Your task to perform on an android device: change notification settings in the gmail app Image 0: 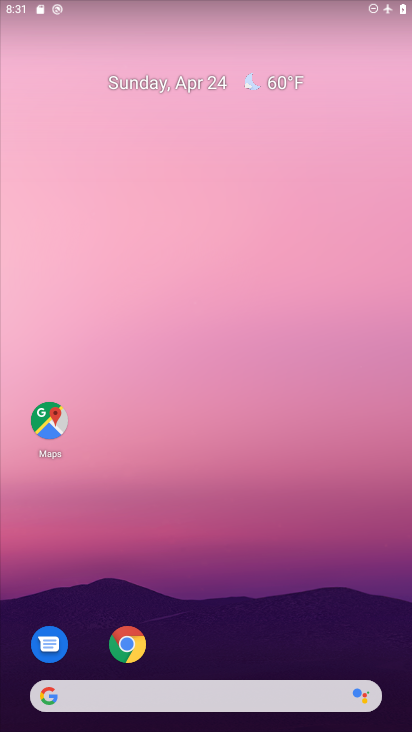
Step 0: click (212, 64)
Your task to perform on an android device: change notification settings in the gmail app Image 1: 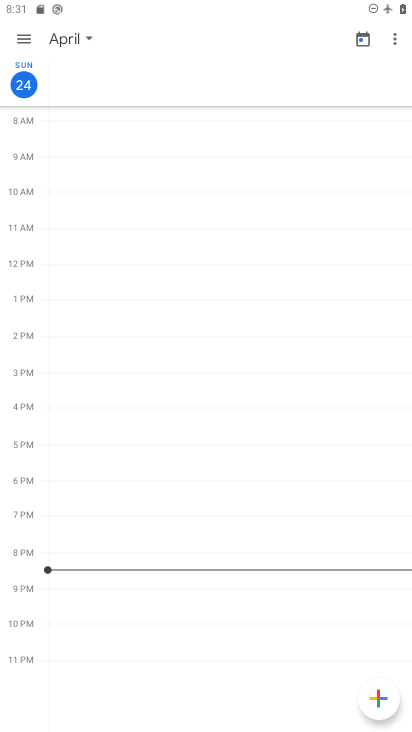
Step 1: press home button
Your task to perform on an android device: change notification settings in the gmail app Image 2: 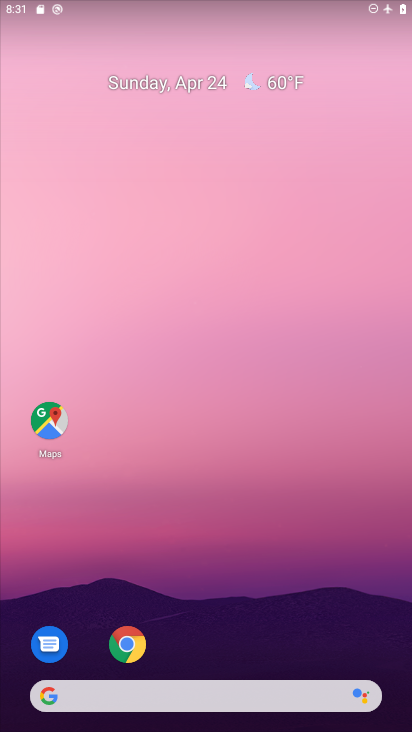
Step 2: drag from (208, 645) to (216, 110)
Your task to perform on an android device: change notification settings in the gmail app Image 3: 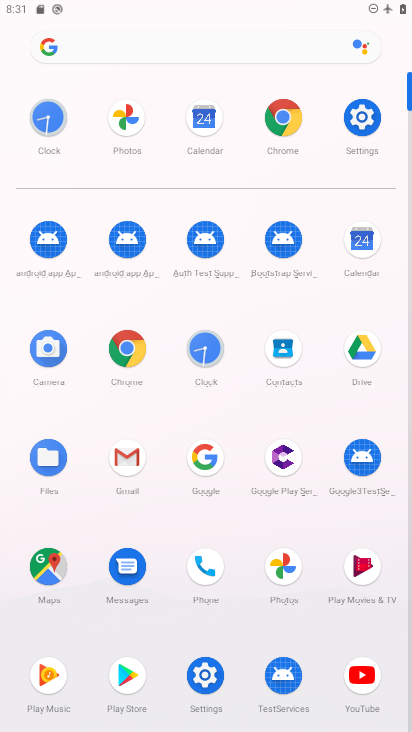
Step 3: click (358, 671)
Your task to perform on an android device: change notification settings in the gmail app Image 4: 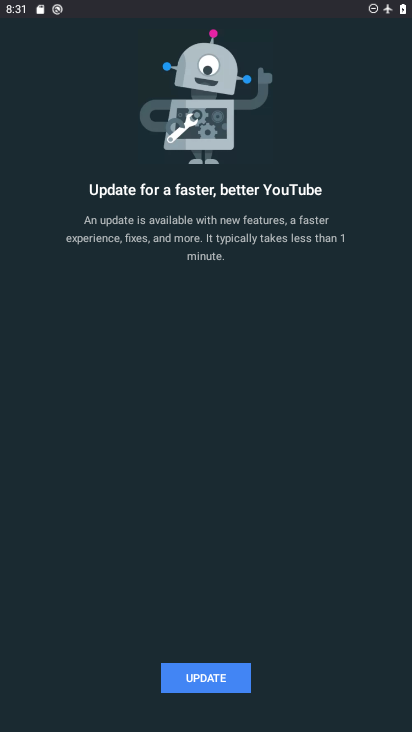
Step 4: press home button
Your task to perform on an android device: change notification settings in the gmail app Image 5: 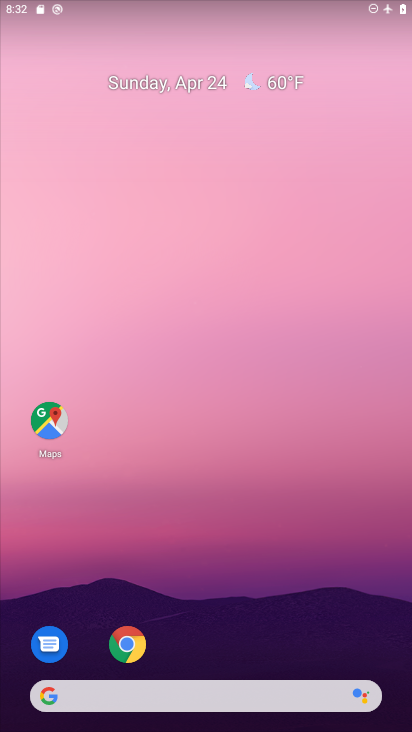
Step 5: drag from (207, 651) to (208, 113)
Your task to perform on an android device: change notification settings in the gmail app Image 6: 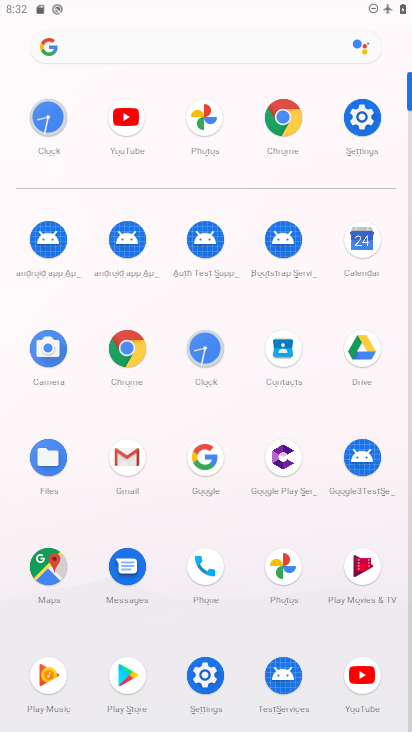
Step 6: click (123, 447)
Your task to perform on an android device: change notification settings in the gmail app Image 7: 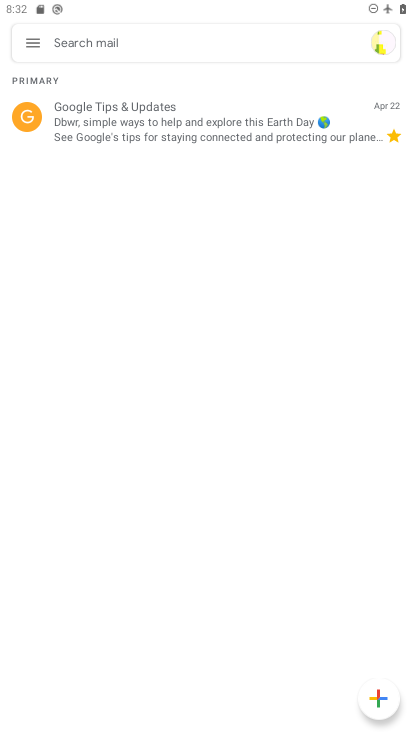
Step 7: click (32, 46)
Your task to perform on an android device: change notification settings in the gmail app Image 8: 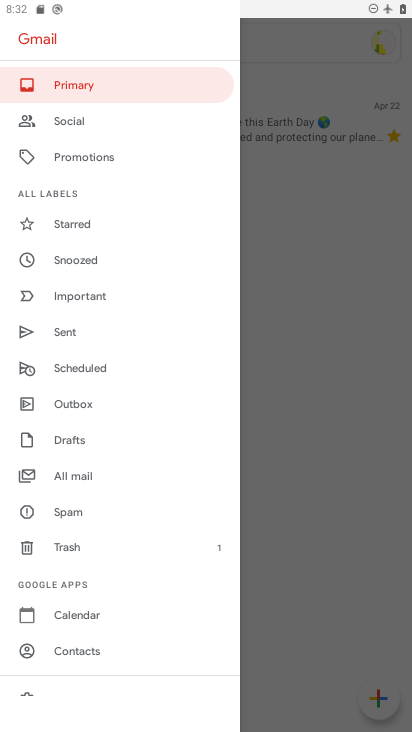
Step 8: drag from (132, 604) to (133, 134)
Your task to perform on an android device: change notification settings in the gmail app Image 9: 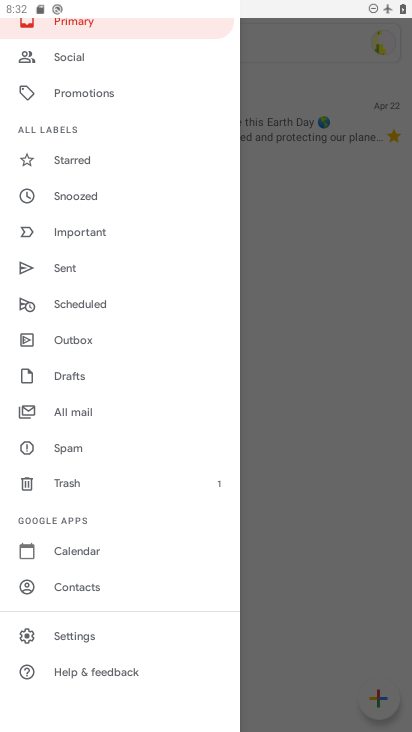
Step 9: click (105, 632)
Your task to perform on an android device: change notification settings in the gmail app Image 10: 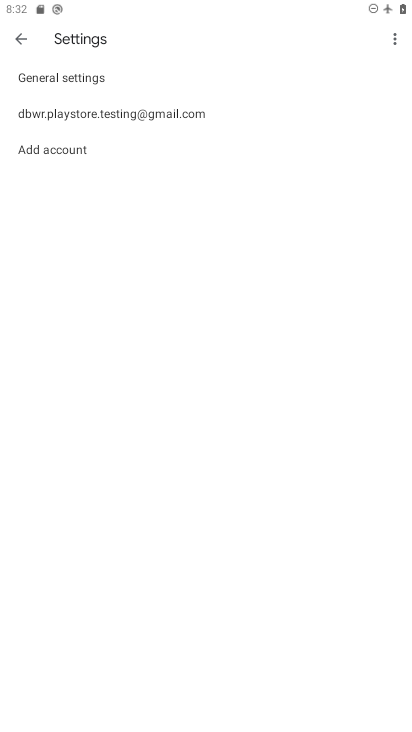
Step 10: click (117, 76)
Your task to perform on an android device: change notification settings in the gmail app Image 11: 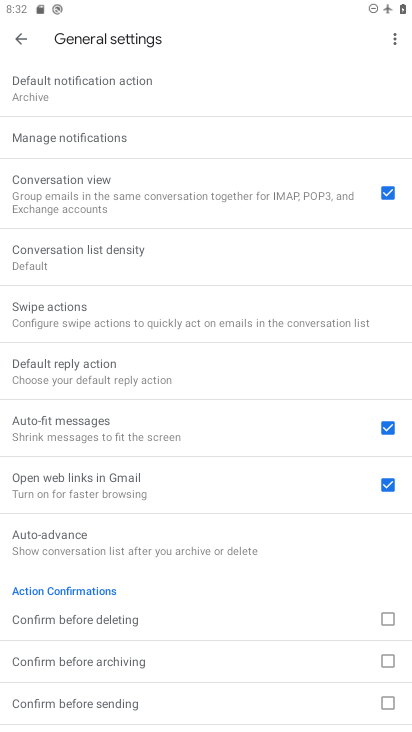
Step 11: click (144, 134)
Your task to perform on an android device: change notification settings in the gmail app Image 12: 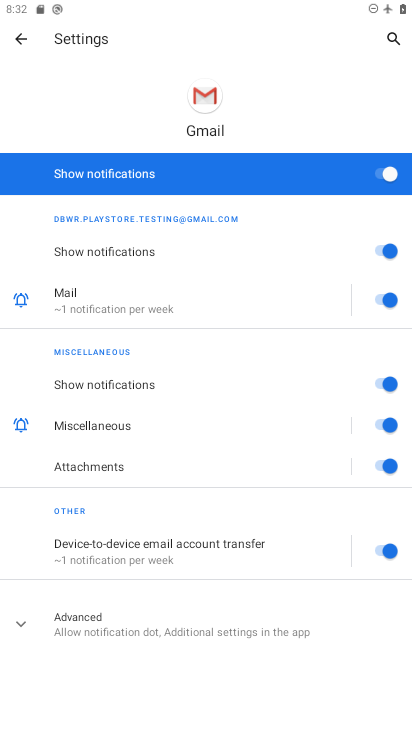
Step 12: click (380, 170)
Your task to perform on an android device: change notification settings in the gmail app Image 13: 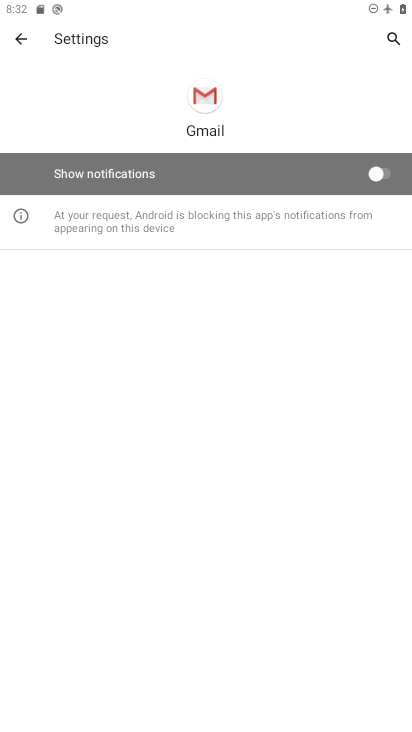
Step 13: task complete